Your task to perform on an android device: set the stopwatch Image 0: 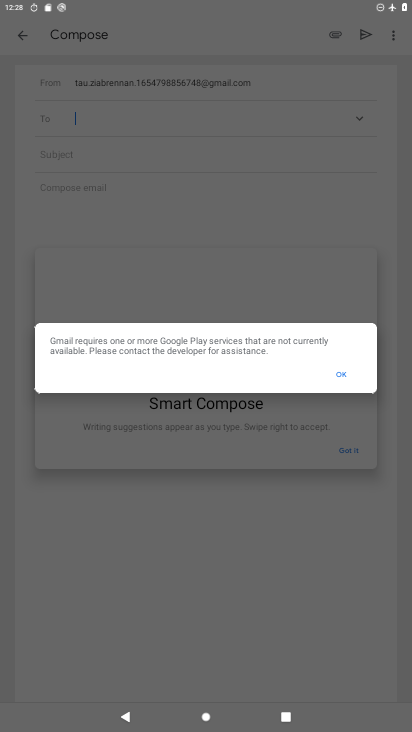
Step 0: press home button
Your task to perform on an android device: set the stopwatch Image 1: 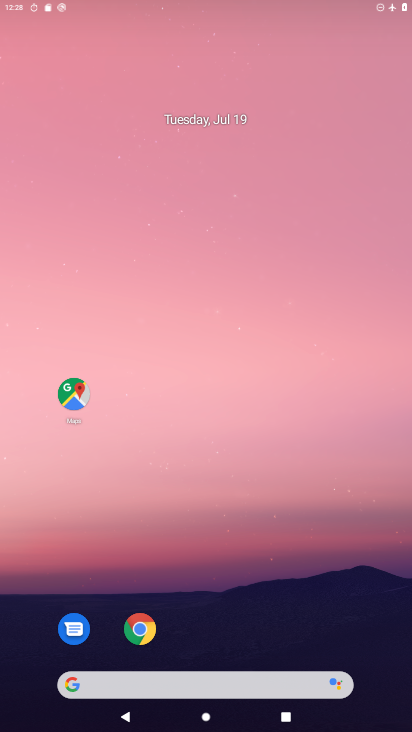
Step 1: drag from (312, 544) to (279, 105)
Your task to perform on an android device: set the stopwatch Image 2: 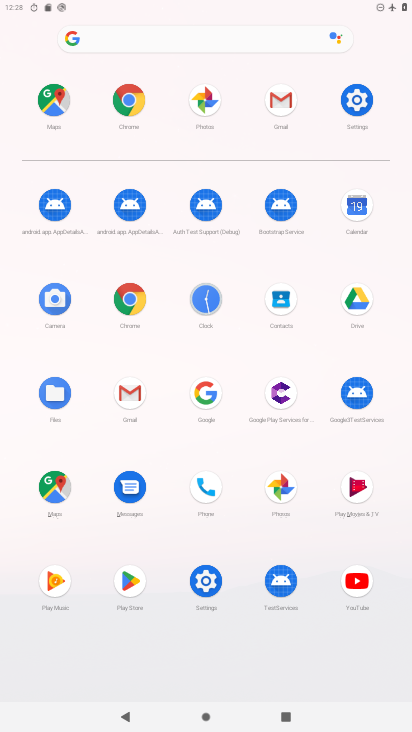
Step 2: click (212, 294)
Your task to perform on an android device: set the stopwatch Image 3: 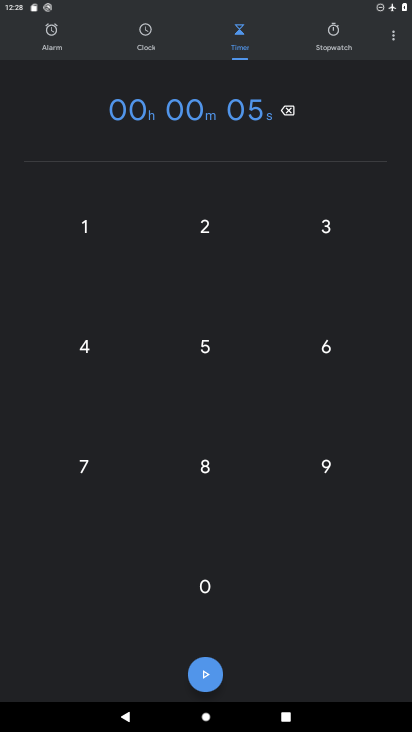
Step 3: click (349, 43)
Your task to perform on an android device: set the stopwatch Image 4: 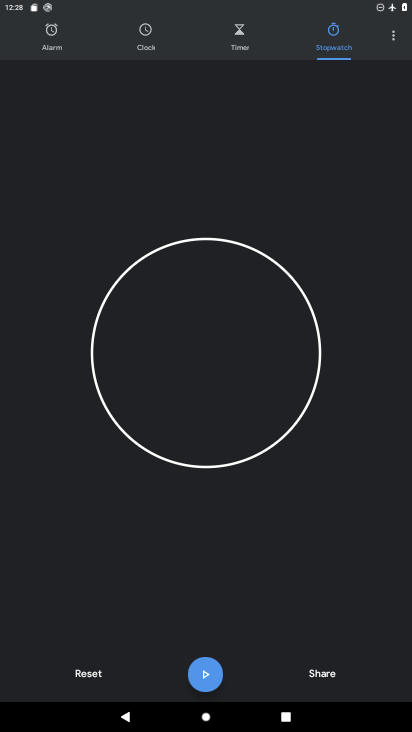
Step 4: task complete